Your task to perform on an android device: Show me popular videos on Youtube Image 0: 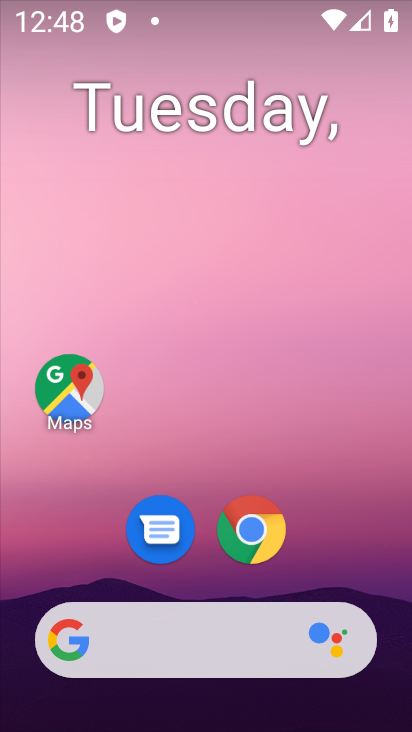
Step 0: drag from (204, 614) to (223, 68)
Your task to perform on an android device: Show me popular videos on Youtube Image 1: 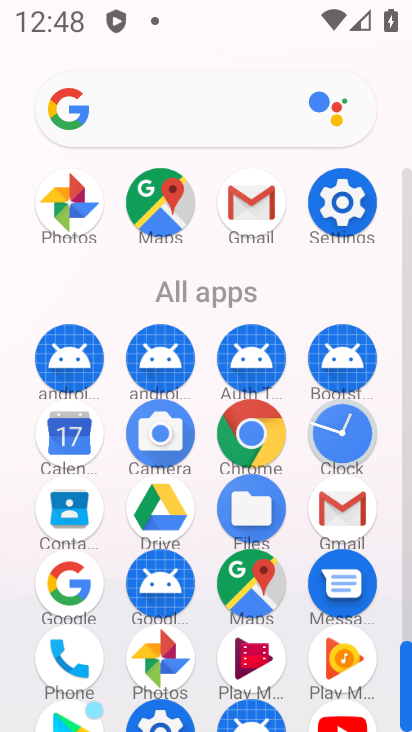
Step 1: click (334, 720)
Your task to perform on an android device: Show me popular videos on Youtube Image 2: 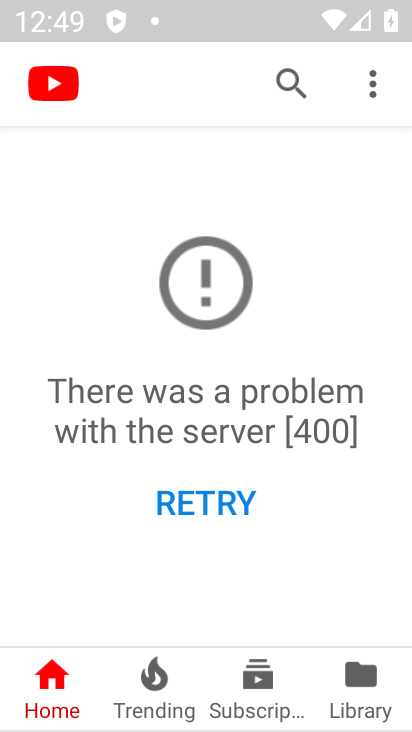
Step 2: click (164, 689)
Your task to perform on an android device: Show me popular videos on Youtube Image 3: 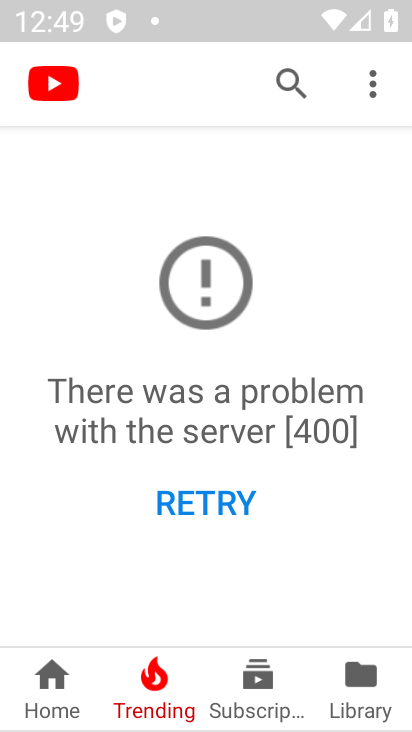
Step 3: task complete